Your task to perform on an android device: turn off improve location accuracy Image 0: 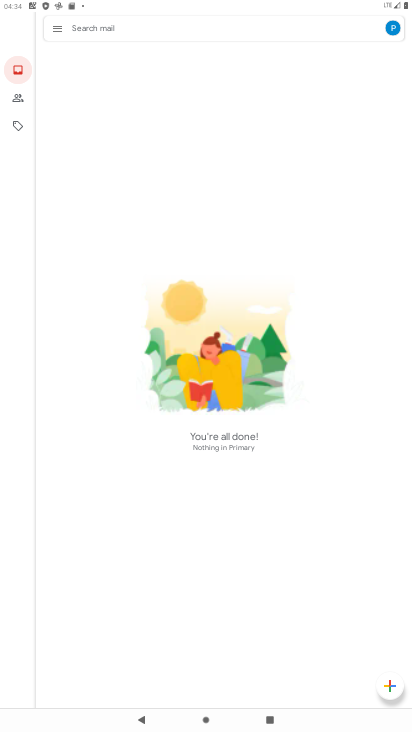
Step 0: press home button
Your task to perform on an android device: turn off improve location accuracy Image 1: 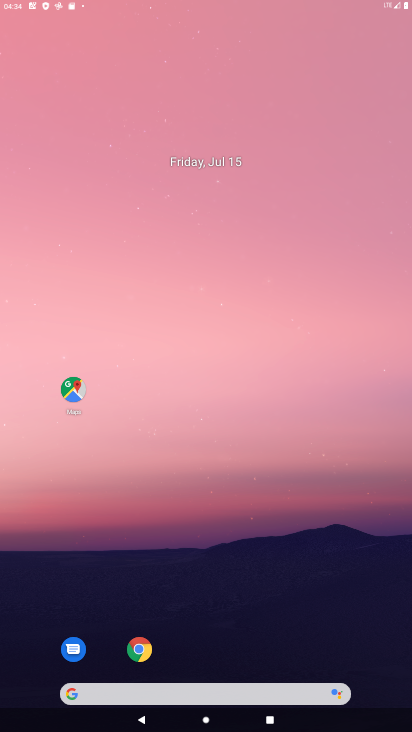
Step 1: drag from (275, 591) to (204, 93)
Your task to perform on an android device: turn off improve location accuracy Image 2: 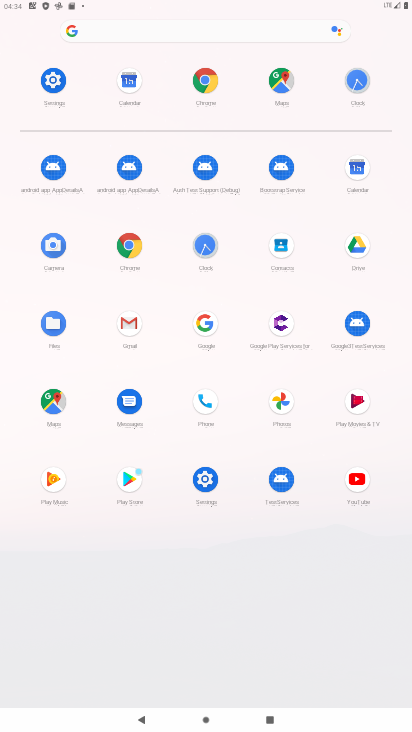
Step 2: click (50, 88)
Your task to perform on an android device: turn off improve location accuracy Image 3: 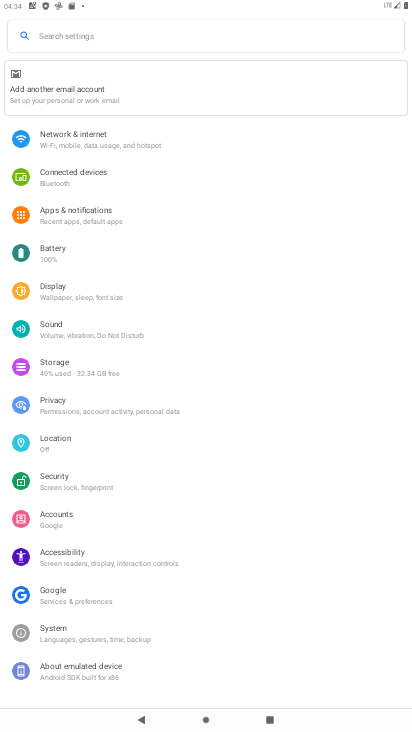
Step 3: click (62, 440)
Your task to perform on an android device: turn off improve location accuracy Image 4: 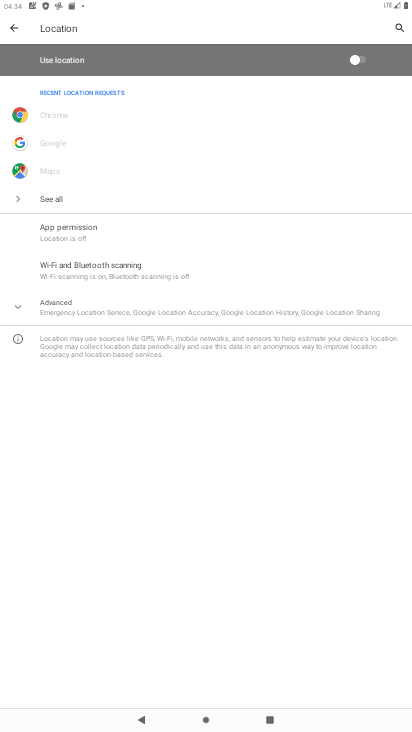
Step 4: click (122, 297)
Your task to perform on an android device: turn off improve location accuracy Image 5: 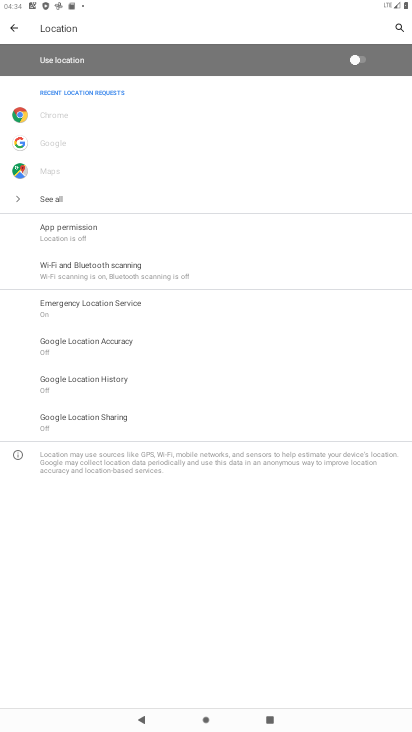
Step 5: click (112, 338)
Your task to perform on an android device: turn off improve location accuracy Image 6: 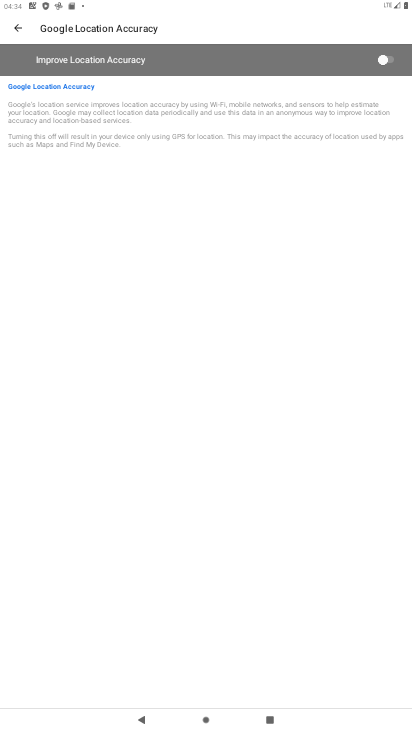
Step 6: task complete